Your task to perform on an android device: Show me popular games on the Play Store Image 0: 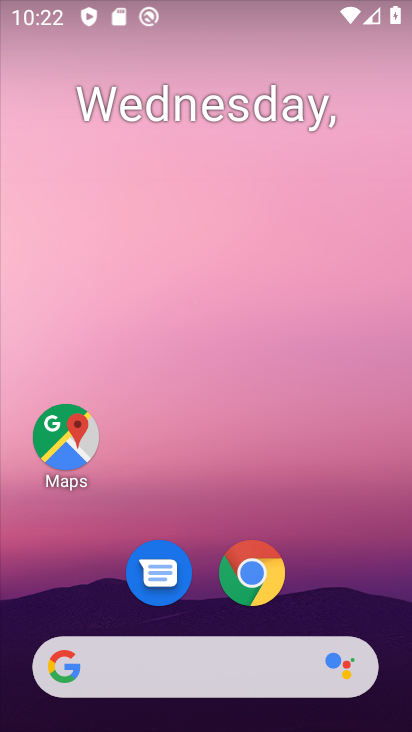
Step 0: drag from (322, 332) to (330, 238)
Your task to perform on an android device: Show me popular games on the Play Store Image 1: 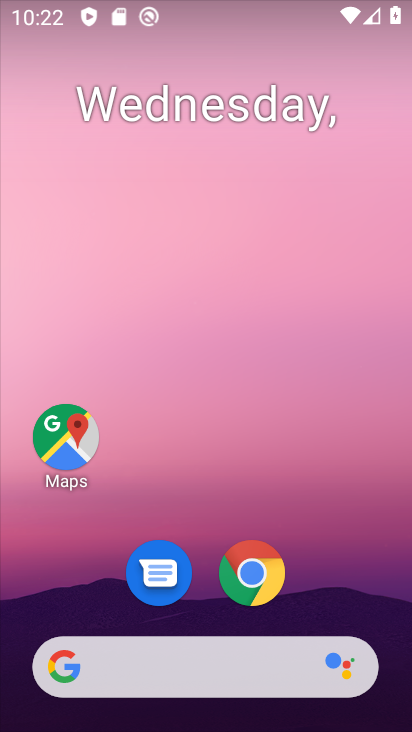
Step 1: drag from (314, 575) to (333, 121)
Your task to perform on an android device: Show me popular games on the Play Store Image 2: 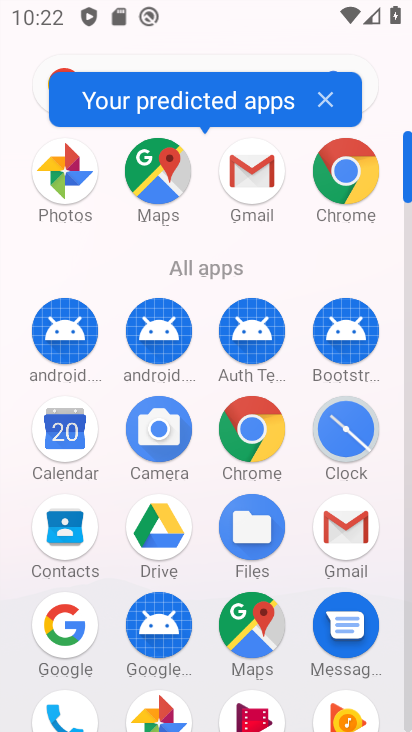
Step 2: drag from (209, 678) to (213, 284)
Your task to perform on an android device: Show me popular games on the Play Store Image 3: 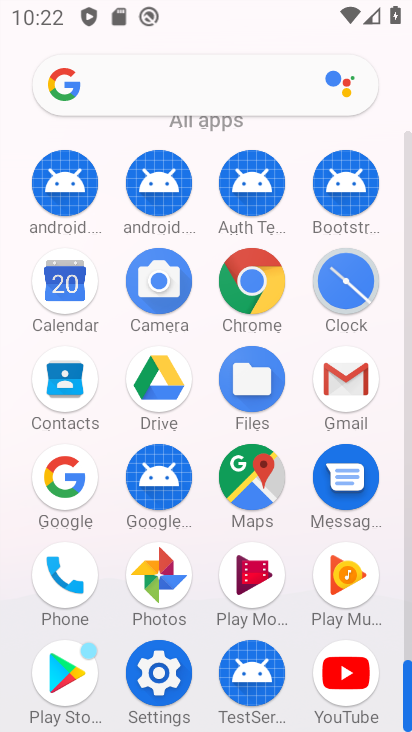
Step 3: click (68, 686)
Your task to perform on an android device: Show me popular games on the Play Store Image 4: 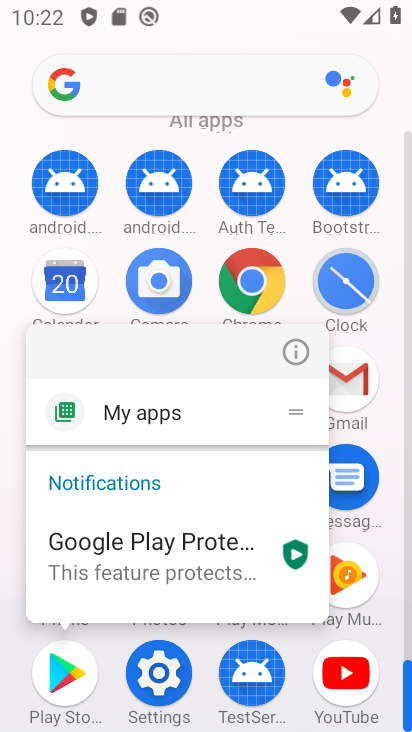
Step 4: click (71, 662)
Your task to perform on an android device: Show me popular games on the Play Store Image 5: 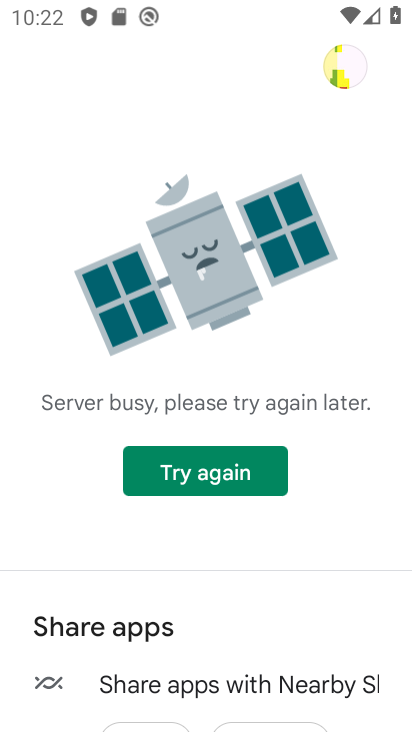
Step 5: task complete